Your task to perform on an android device: check battery use Image 0: 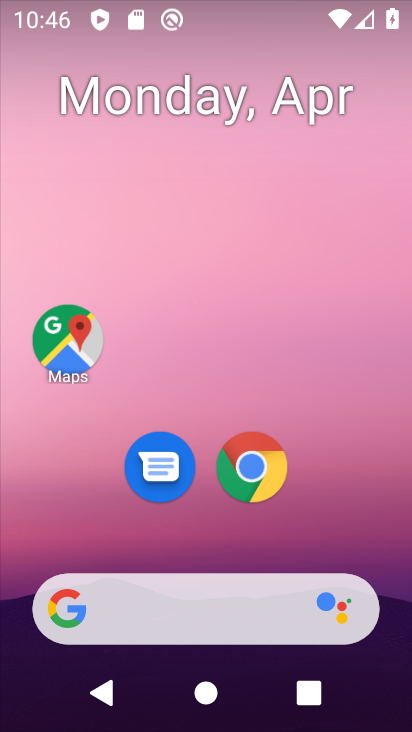
Step 0: drag from (279, 477) to (337, 8)
Your task to perform on an android device: check battery use Image 1: 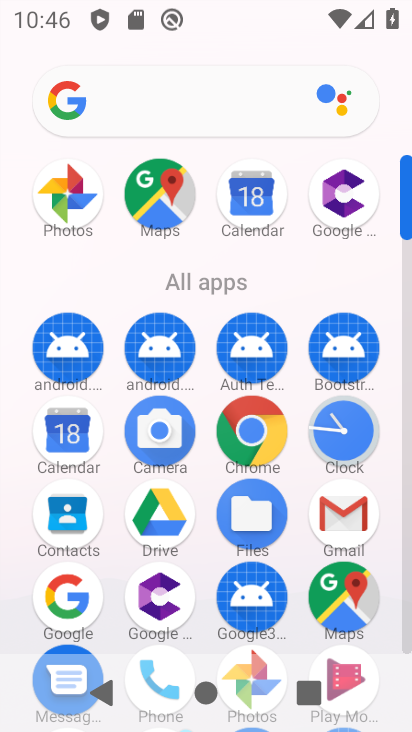
Step 1: drag from (292, 500) to (306, 205)
Your task to perform on an android device: check battery use Image 2: 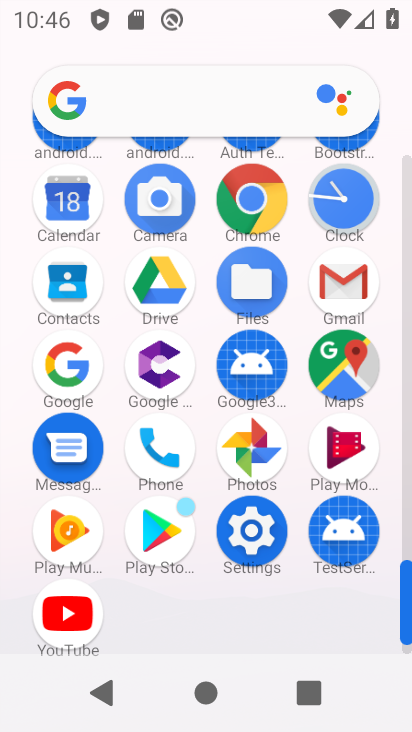
Step 2: click (257, 527)
Your task to perform on an android device: check battery use Image 3: 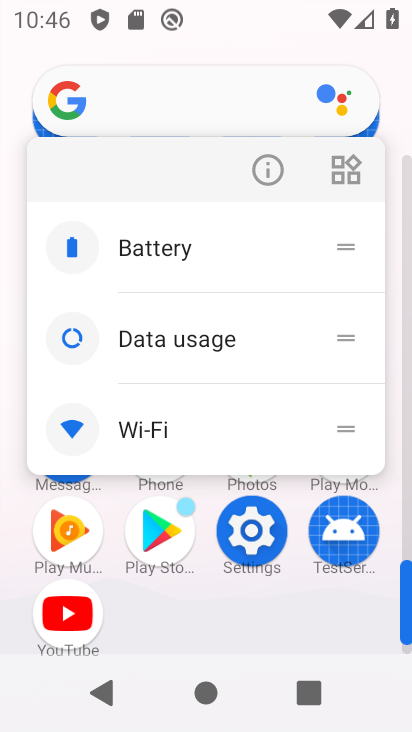
Step 3: click (270, 514)
Your task to perform on an android device: check battery use Image 4: 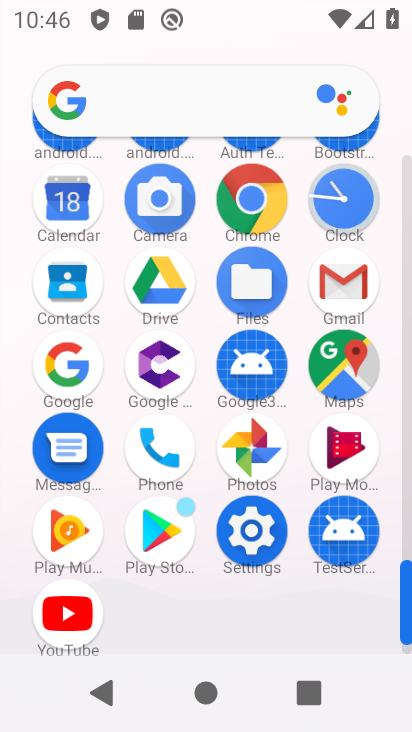
Step 4: click (249, 545)
Your task to perform on an android device: check battery use Image 5: 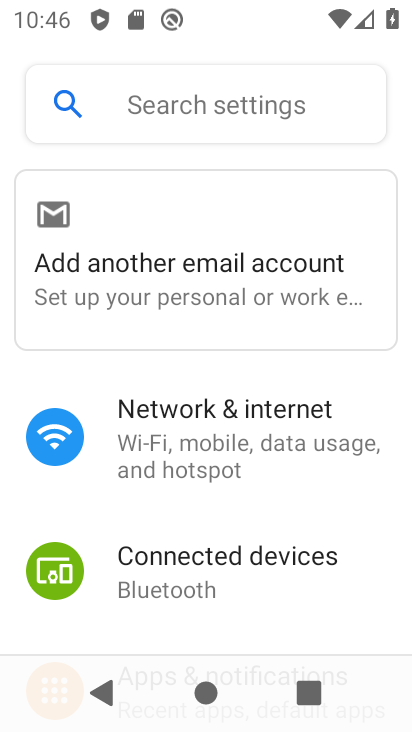
Step 5: drag from (244, 577) to (235, 224)
Your task to perform on an android device: check battery use Image 6: 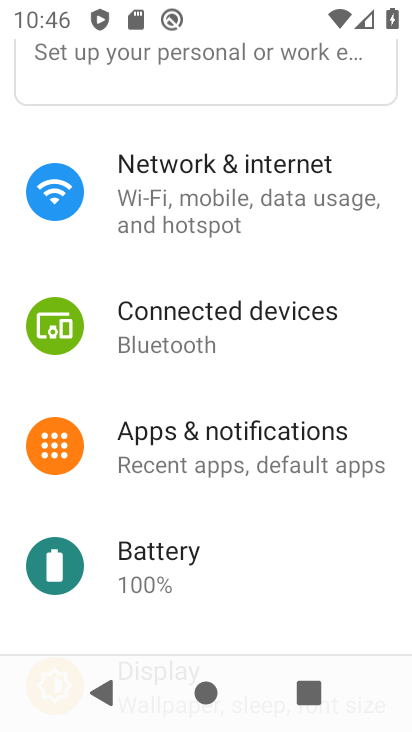
Step 6: click (199, 563)
Your task to perform on an android device: check battery use Image 7: 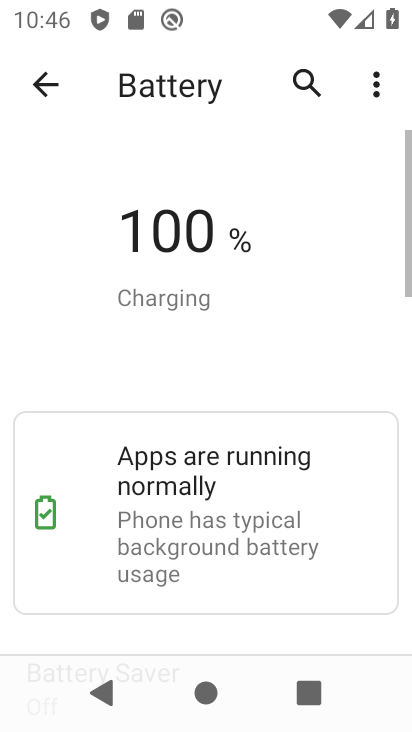
Step 7: task complete